Your task to perform on an android device: toggle airplane mode Image 0: 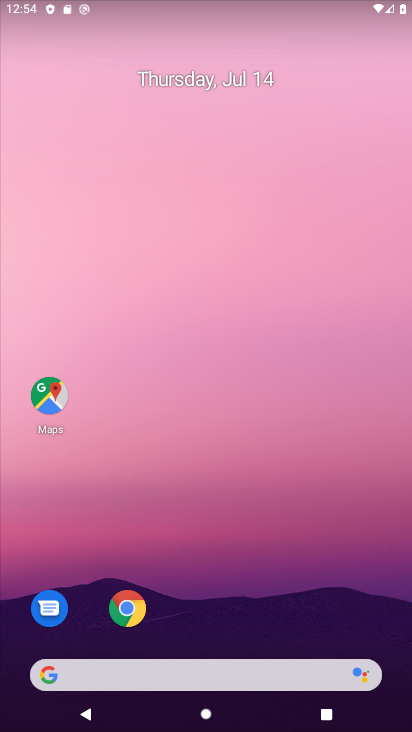
Step 0: drag from (373, 611) to (330, 147)
Your task to perform on an android device: toggle airplane mode Image 1: 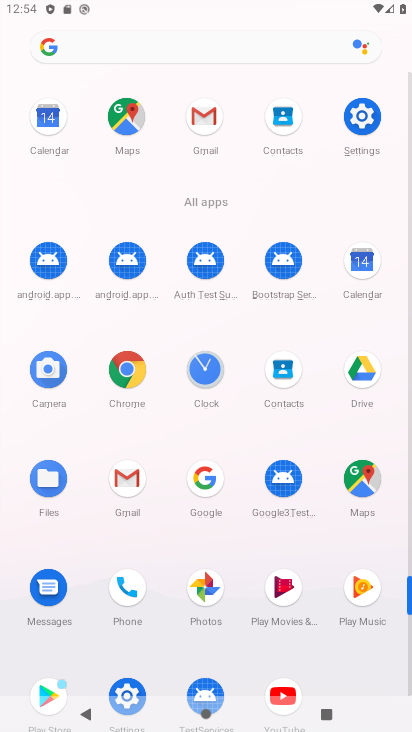
Step 1: drag from (189, 665) to (183, 498)
Your task to perform on an android device: toggle airplane mode Image 2: 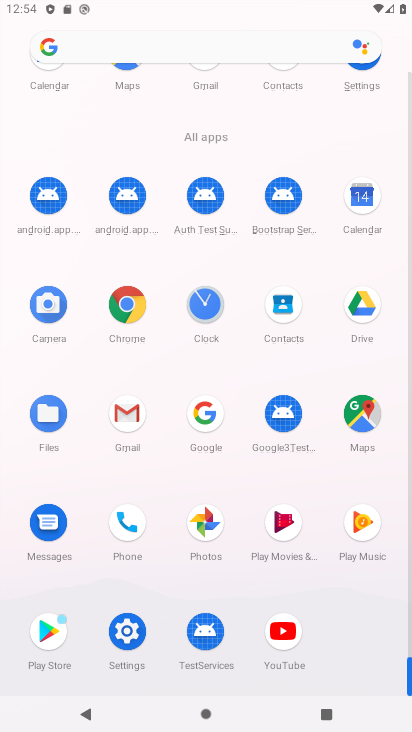
Step 2: click (126, 631)
Your task to perform on an android device: toggle airplane mode Image 3: 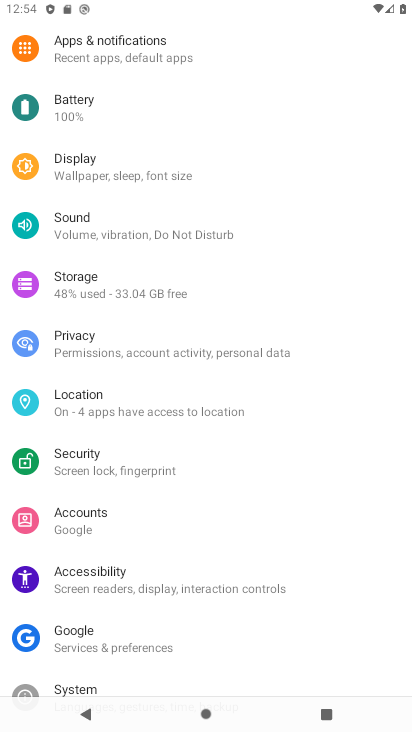
Step 3: drag from (285, 122) to (262, 365)
Your task to perform on an android device: toggle airplane mode Image 4: 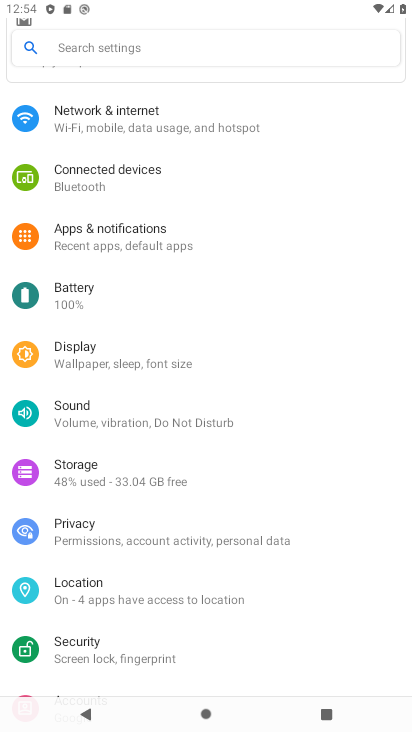
Step 4: click (91, 110)
Your task to perform on an android device: toggle airplane mode Image 5: 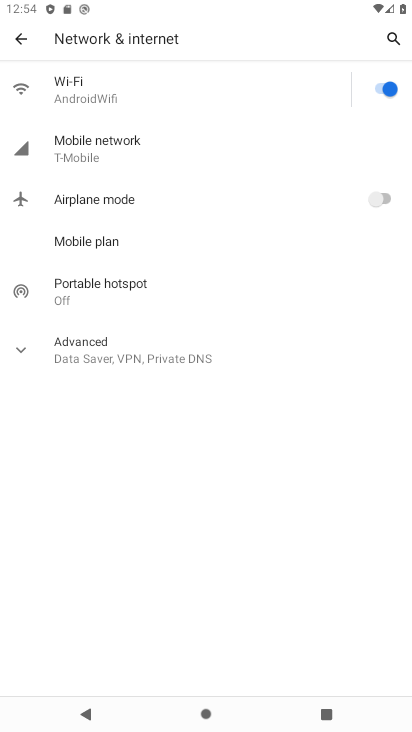
Step 5: click (384, 199)
Your task to perform on an android device: toggle airplane mode Image 6: 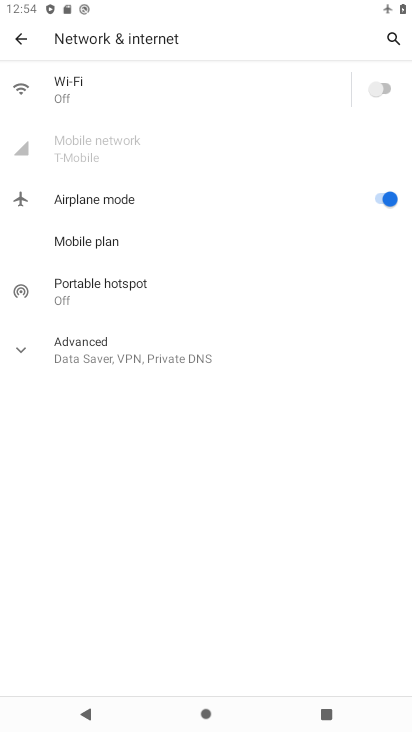
Step 6: task complete